Your task to perform on an android device: What's the weather? Image 0: 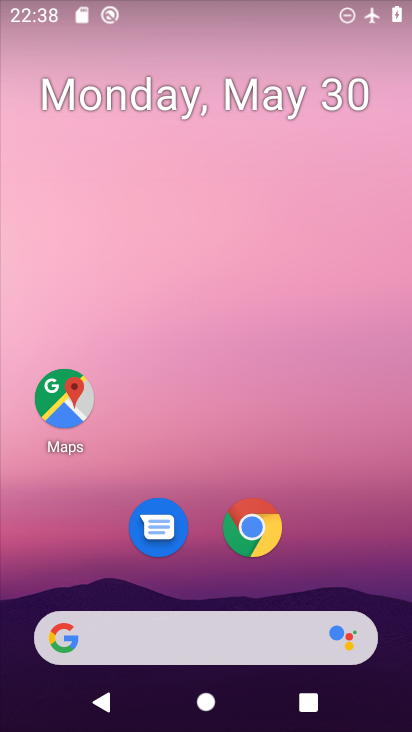
Step 0: drag from (329, 559) to (346, 244)
Your task to perform on an android device: What's the weather? Image 1: 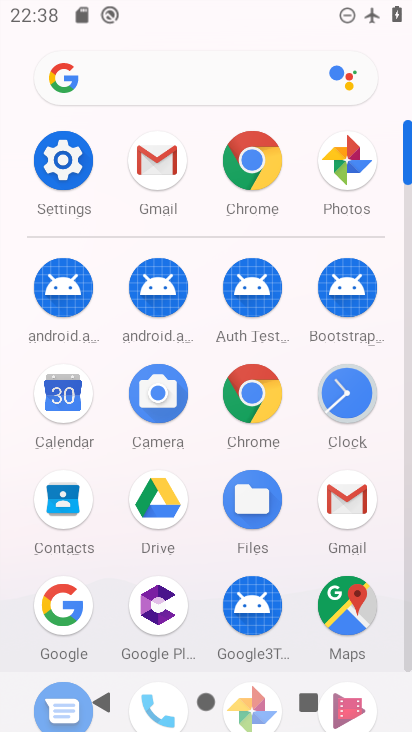
Step 1: click (238, 159)
Your task to perform on an android device: What's the weather? Image 2: 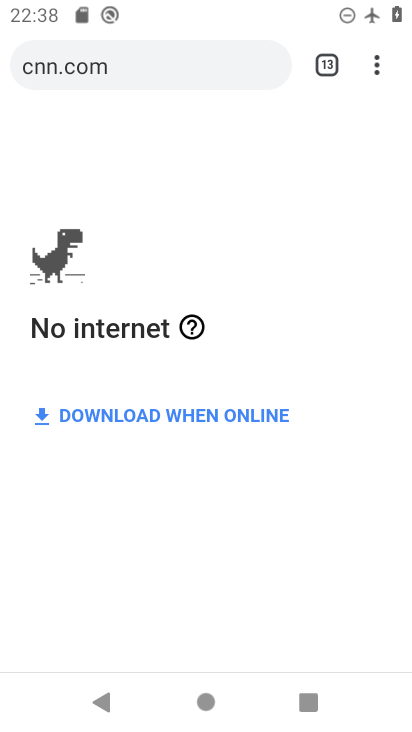
Step 2: click (372, 64)
Your task to perform on an android device: What's the weather? Image 3: 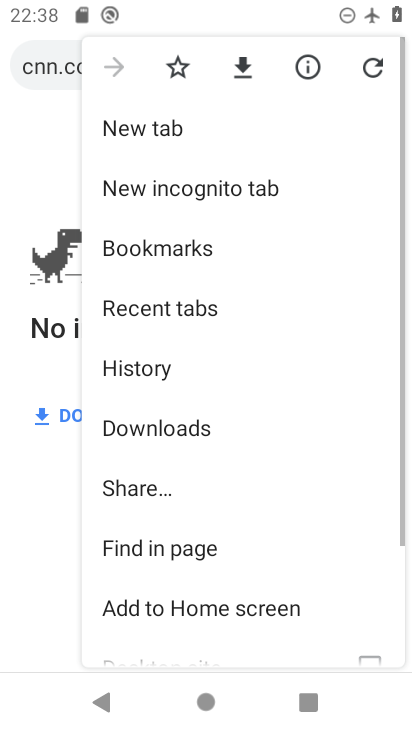
Step 3: click (138, 125)
Your task to perform on an android device: What's the weather? Image 4: 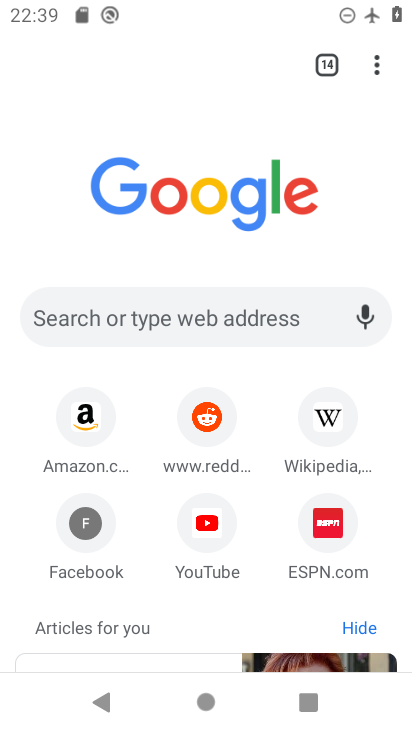
Step 4: click (149, 299)
Your task to perform on an android device: What's the weather? Image 5: 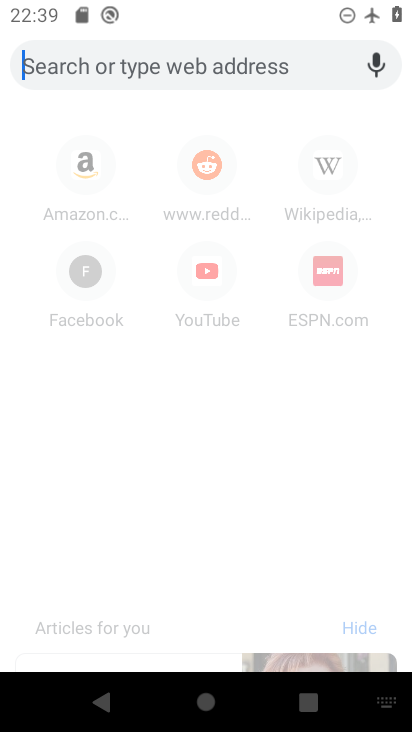
Step 5: type "What's the weather?"
Your task to perform on an android device: What's the weather? Image 6: 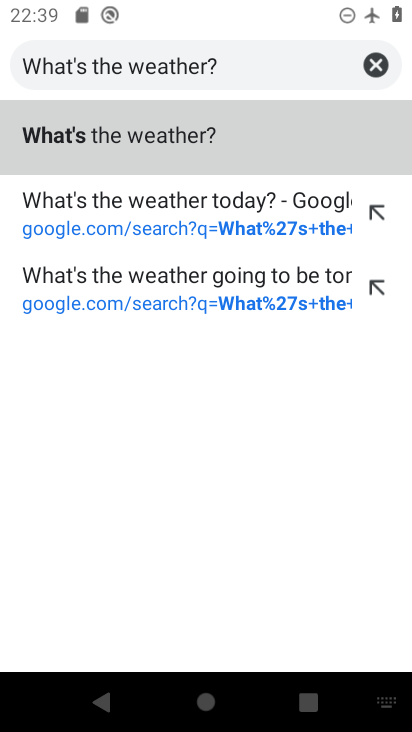
Step 6: click (252, 144)
Your task to perform on an android device: What's the weather? Image 7: 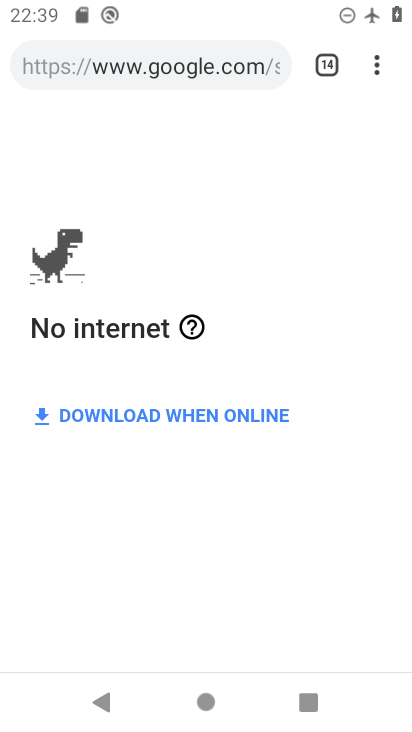
Step 7: task complete